Your task to perform on an android device: empty trash in google photos Image 0: 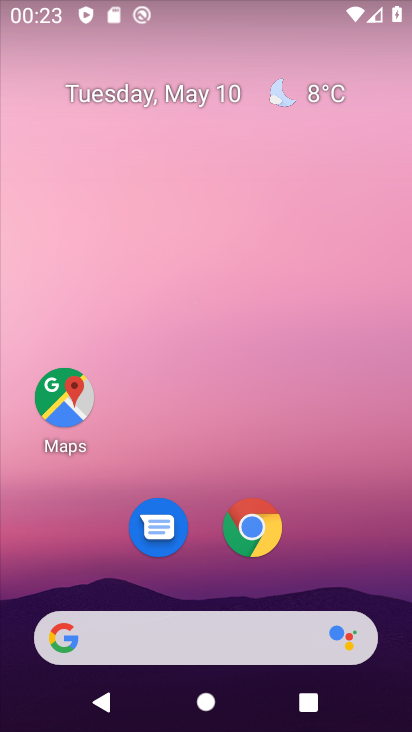
Step 0: drag from (312, 488) to (246, 228)
Your task to perform on an android device: empty trash in google photos Image 1: 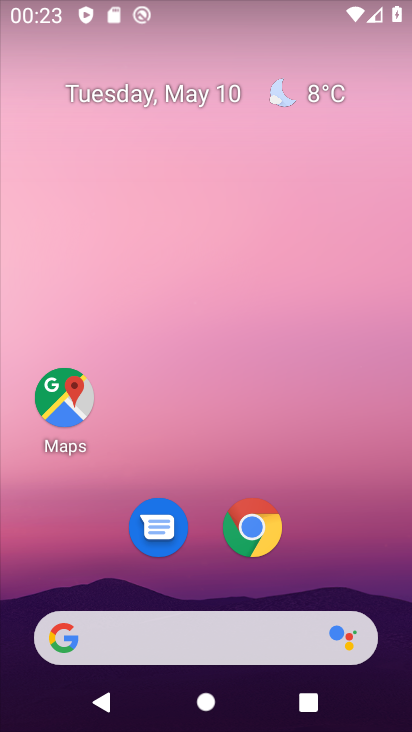
Step 1: drag from (340, 476) to (124, 139)
Your task to perform on an android device: empty trash in google photos Image 2: 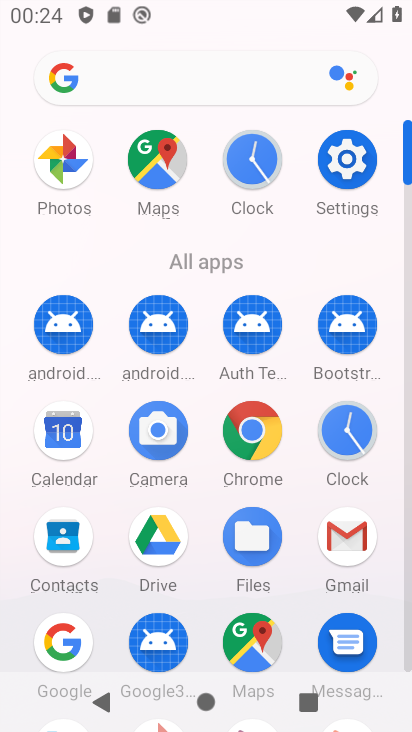
Step 2: click (70, 175)
Your task to perform on an android device: empty trash in google photos Image 3: 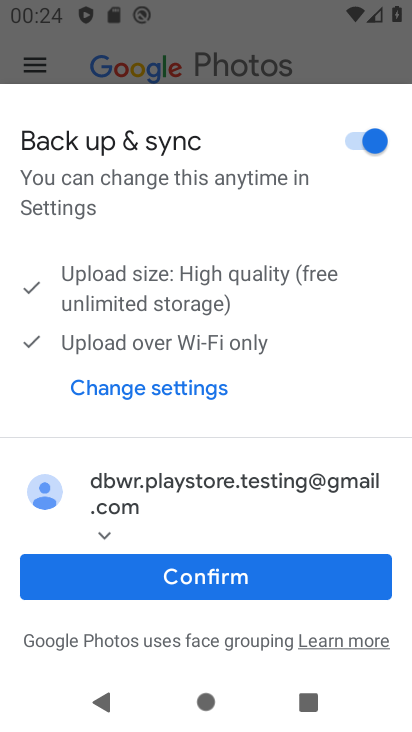
Step 3: press back button
Your task to perform on an android device: empty trash in google photos Image 4: 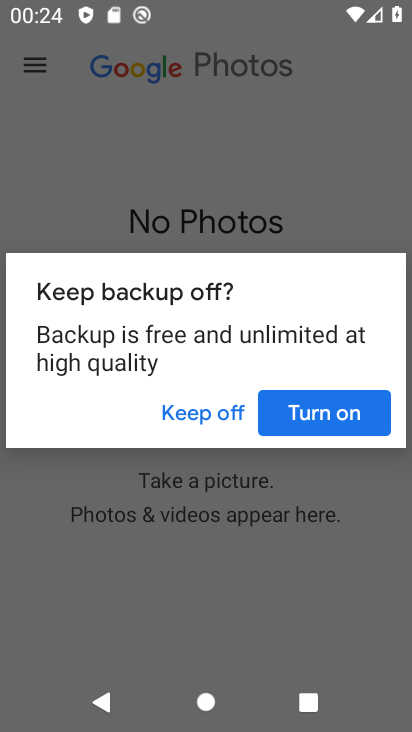
Step 4: click (206, 416)
Your task to perform on an android device: empty trash in google photos Image 5: 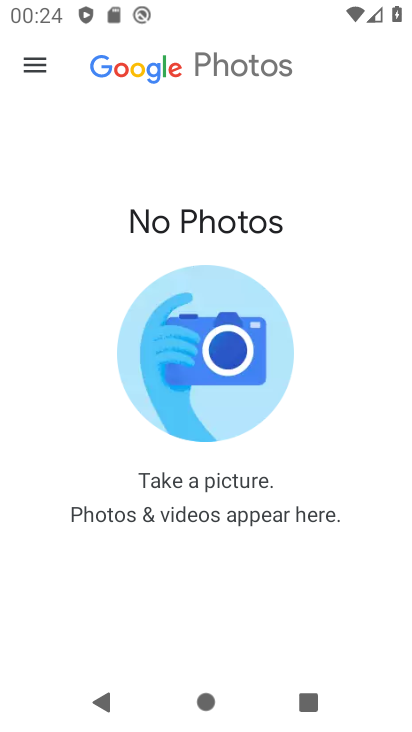
Step 5: click (34, 67)
Your task to perform on an android device: empty trash in google photos Image 6: 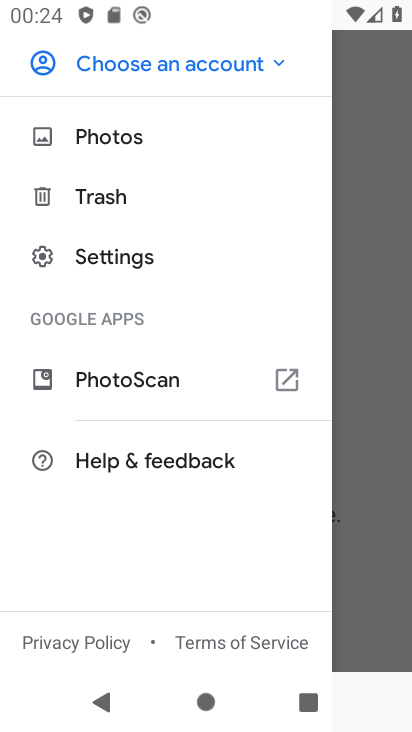
Step 6: click (108, 207)
Your task to perform on an android device: empty trash in google photos Image 7: 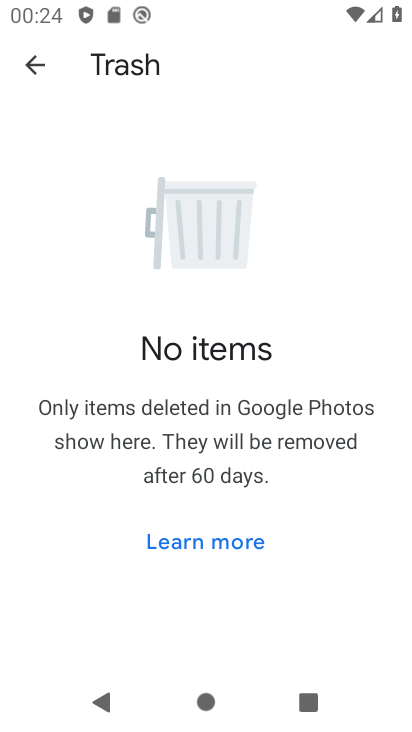
Step 7: task complete